Your task to perform on an android device: Open the phone app and click the voicemail tab. Image 0: 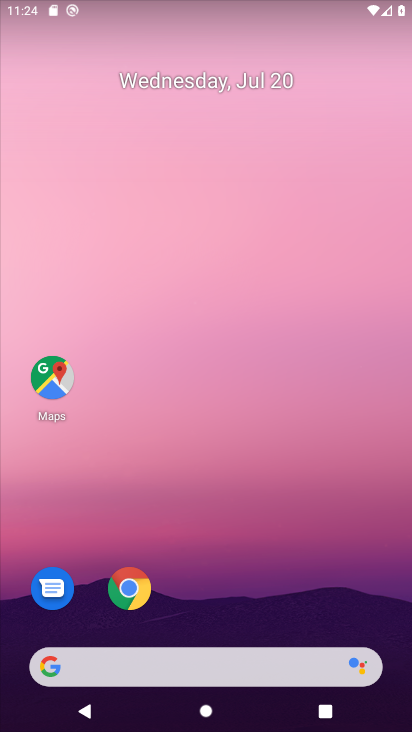
Step 0: drag from (195, 619) to (238, 7)
Your task to perform on an android device: Open the phone app and click the voicemail tab. Image 1: 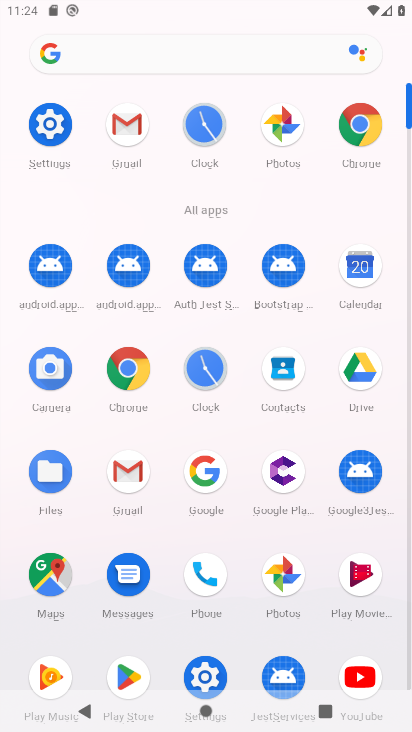
Step 1: click (203, 570)
Your task to perform on an android device: Open the phone app and click the voicemail tab. Image 2: 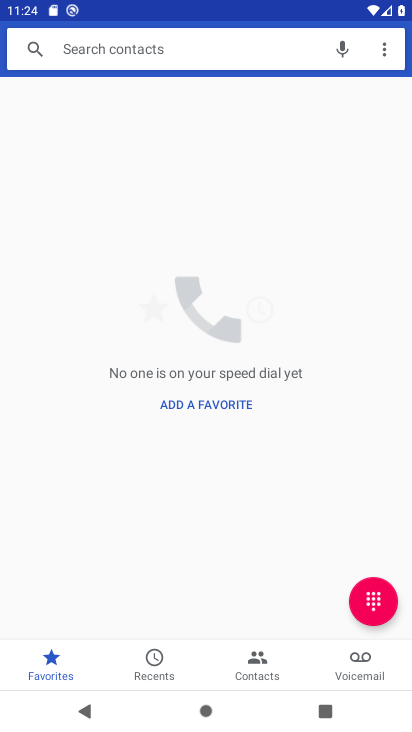
Step 2: click (361, 652)
Your task to perform on an android device: Open the phone app and click the voicemail tab. Image 3: 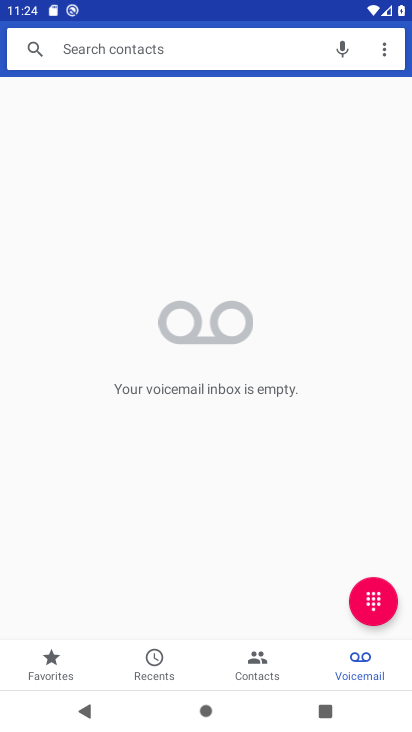
Step 3: task complete